Your task to perform on an android device: turn on sleep mode Image 0: 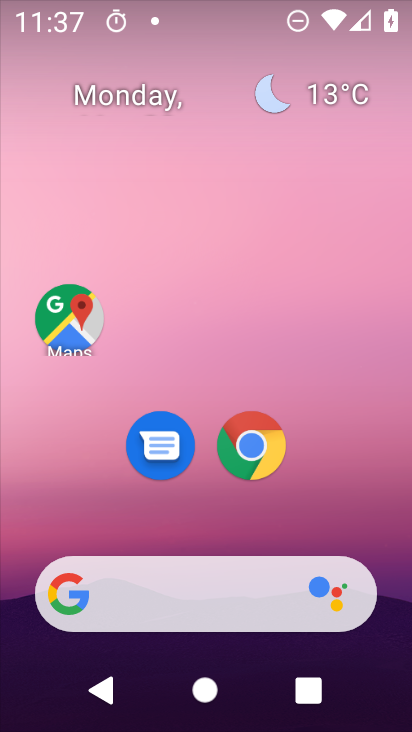
Step 0: drag from (134, 466) to (172, 27)
Your task to perform on an android device: turn on sleep mode Image 1: 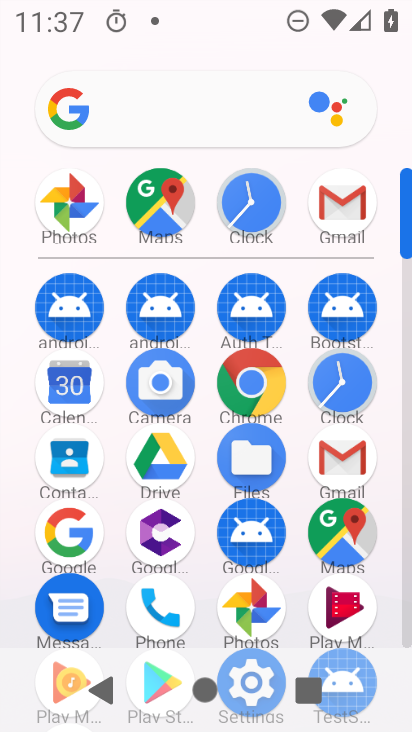
Step 1: drag from (239, 566) to (261, 124)
Your task to perform on an android device: turn on sleep mode Image 2: 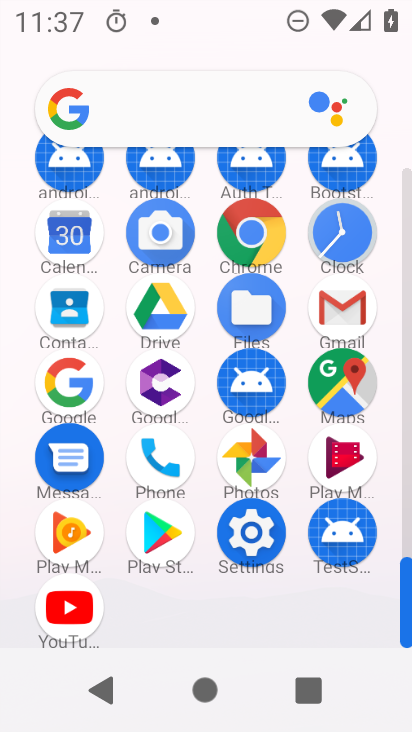
Step 2: click (247, 550)
Your task to perform on an android device: turn on sleep mode Image 3: 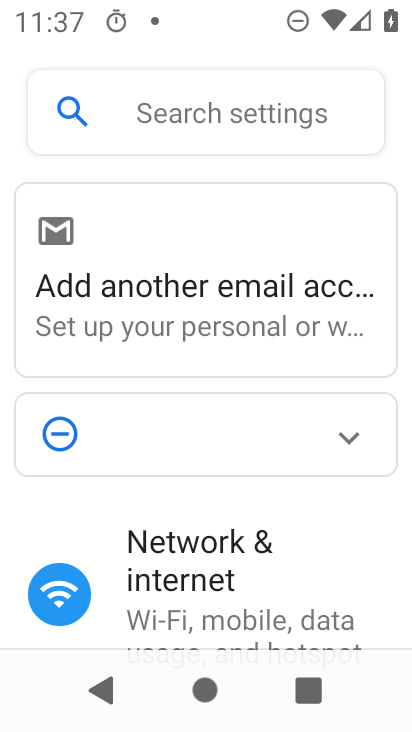
Step 3: click (182, 113)
Your task to perform on an android device: turn on sleep mode Image 4: 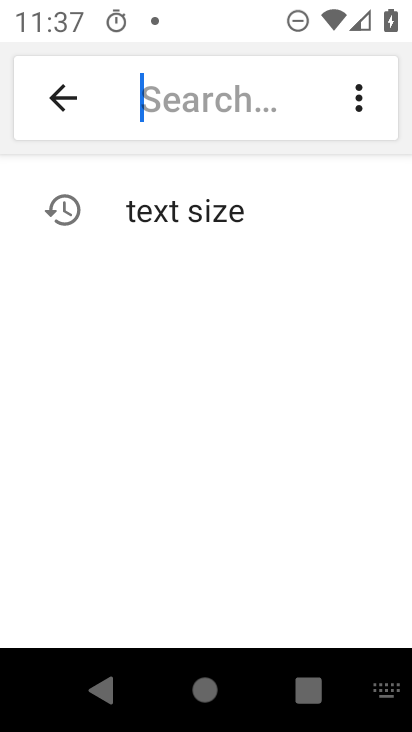
Step 4: type "slepe"
Your task to perform on an android device: turn on sleep mode Image 5: 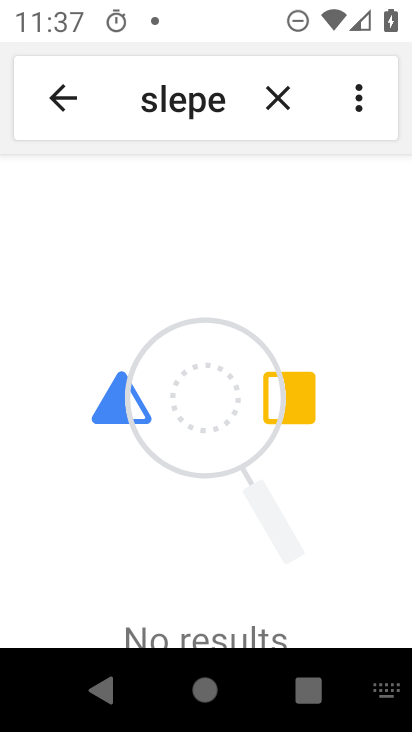
Step 5: task complete